Your task to perform on an android device: Open Chrome and go to settings Image 0: 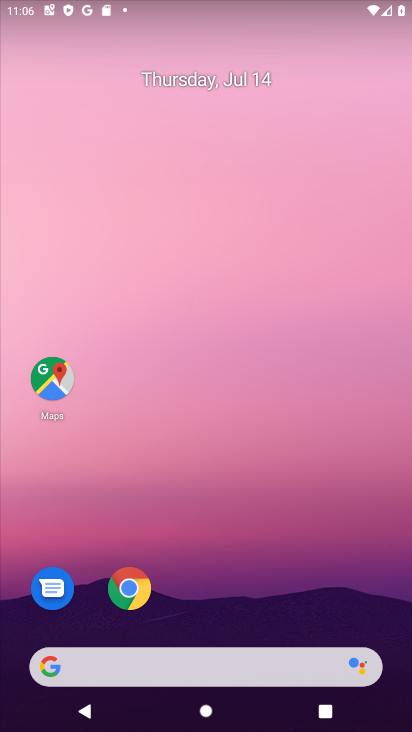
Step 0: click (123, 596)
Your task to perform on an android device: Open Chrome and go to settings Image 1: 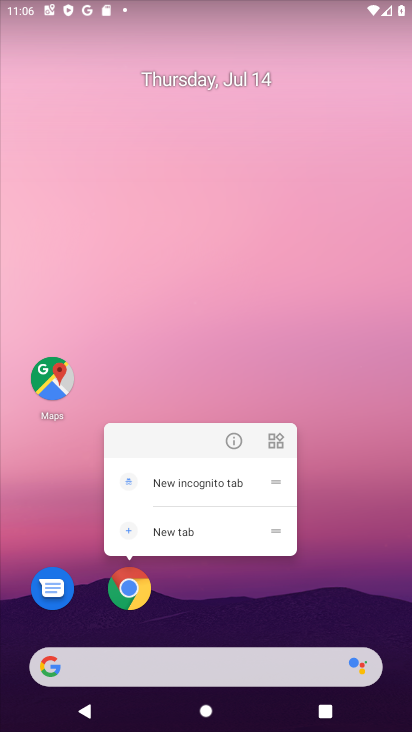
Step 1: click (125, 588)
Your task to perform on an android device: Open Chrome and go to settings Image 2: 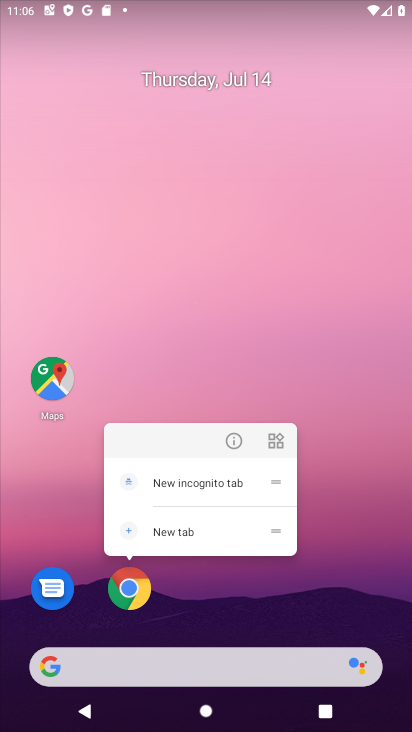
Step 2: click (129, 598)
Your task to perform on an android device: Open Chrome and go to settings Image 3: 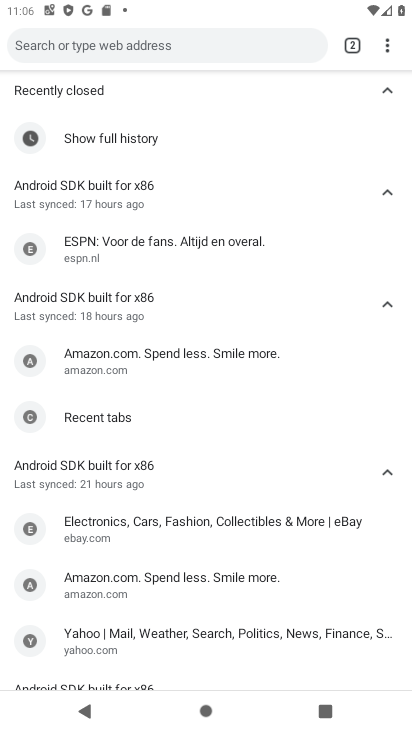
Step 3: task complete